Your task to perform on an android device: delete a single message in the gmail app Image 0: 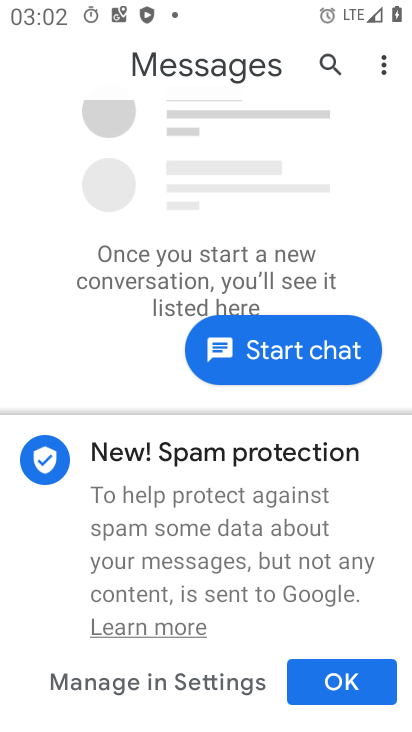
Step 0: press back button
Your task to perform on an android device: delete a single message in the gmail app Image 1: 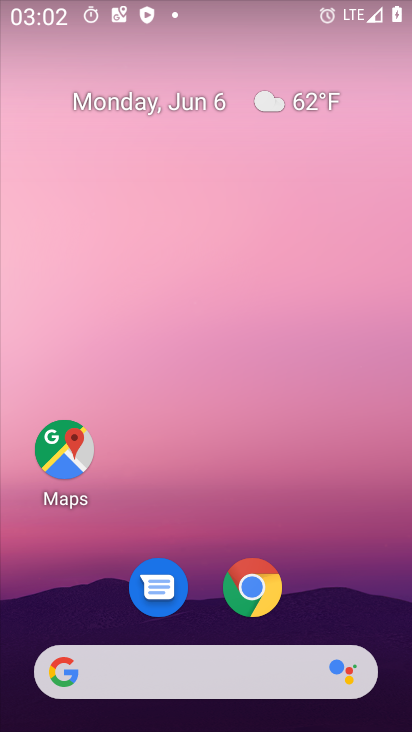
Step 1: drag from (318, 595) to (235, 40)
Your task to perform on an android device: delete a single message in the gmail app Image 2: 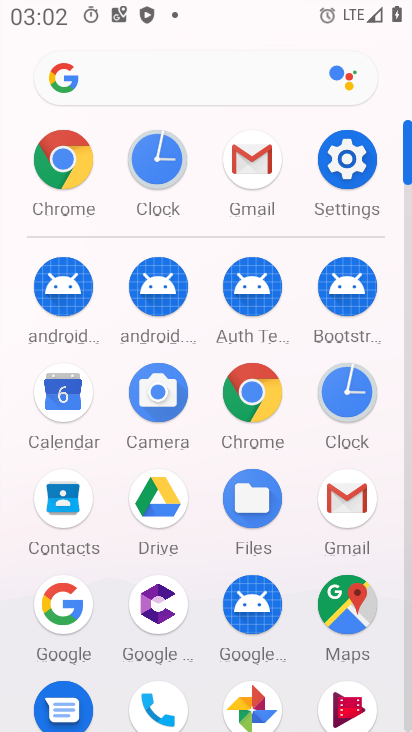
Step 2: drag from (21, 619) to (6, 241)
Your task to perform on an android device: delete a single message in the gmail app Image 3: 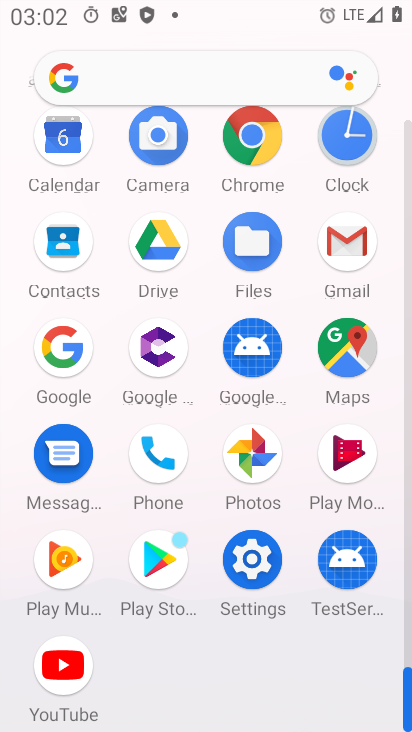
Step 3: click (349, 238)
Your task to perform on an android device: delete a single message in the gmail app Image 4: 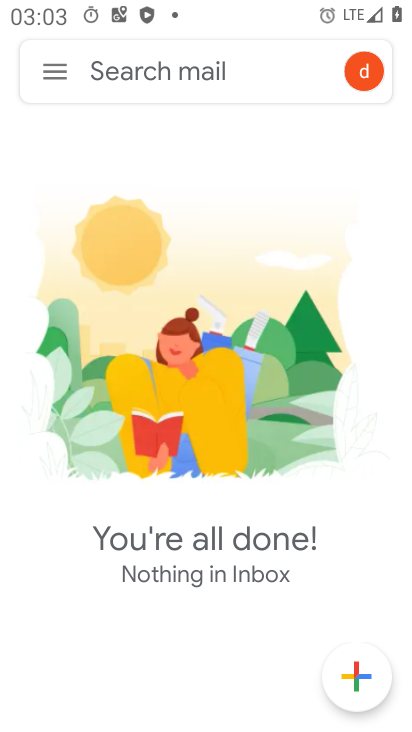
Step 4: click (60, 75)
Your task to perform on an android device: delete a single message in the gmail app Image 5: 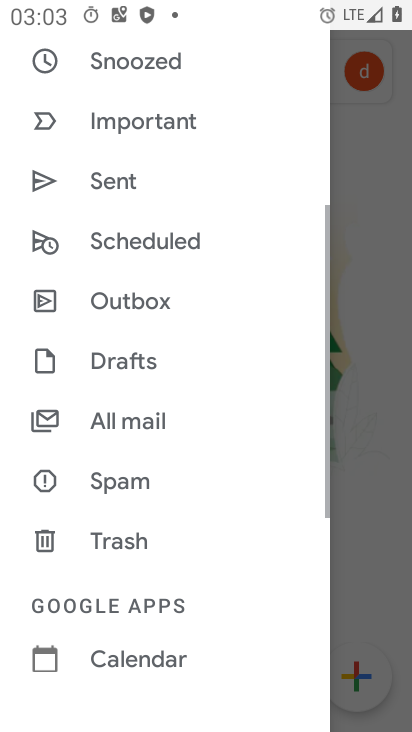
Step 5: click (147, 406)
Your task to perform on an android device: delete a single message in the gmail app Image 6: 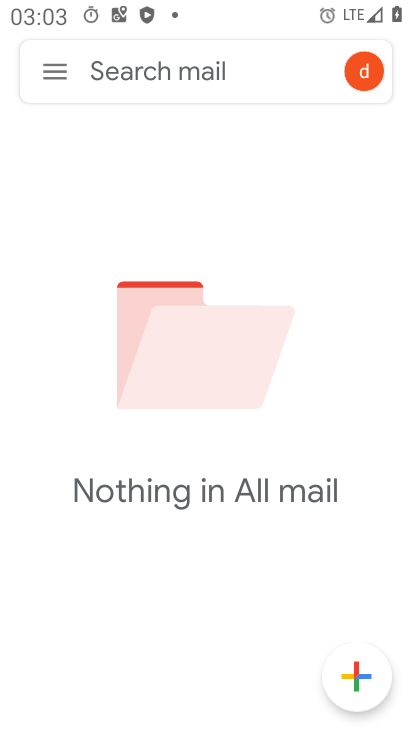
Step 6: task complete